Your task to perform on an android device: toggle notifications settings in the gmail app Image 0: 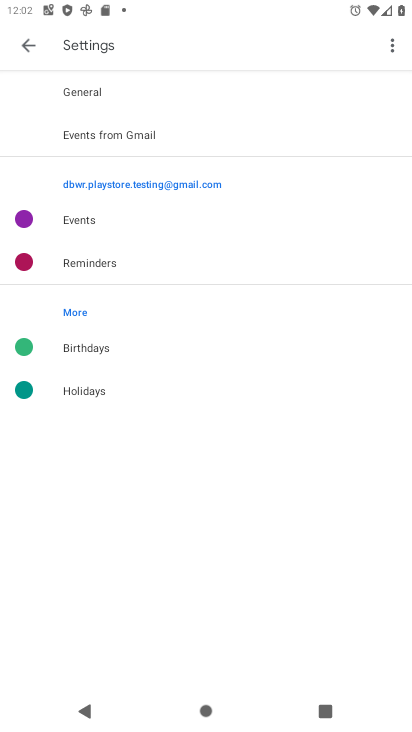
Step 0: press home button
Your task to perform on an android device: toggle notifications settings in the gmail app Image 1: 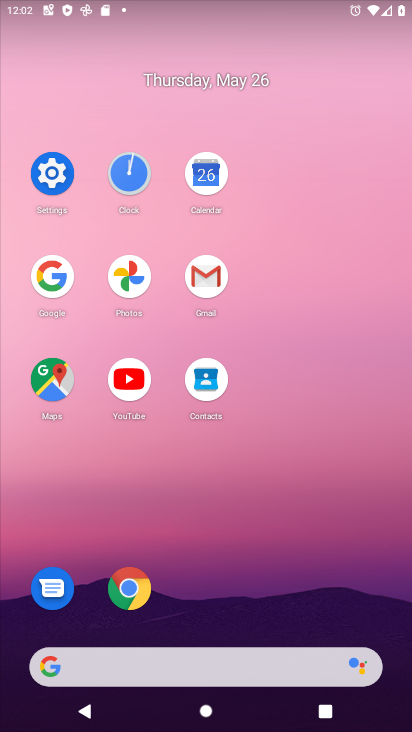
Step 1: click (38, 180)
Your task to perform on an android device: toggle notifications settings in the gmail app Image 2: 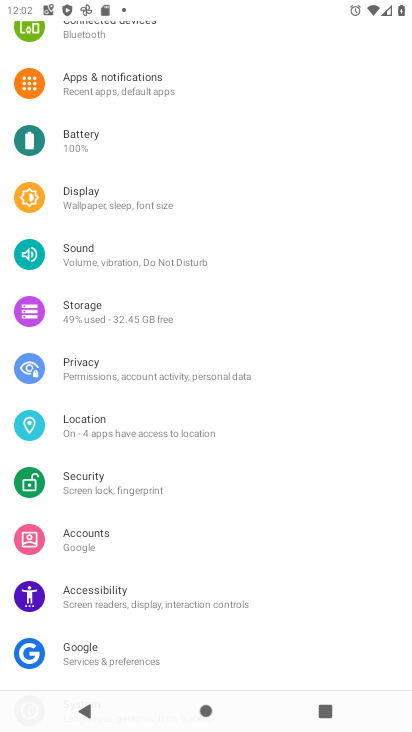
Step 2: click (203, 99)
Your task to perform on an android device: toggle notifications settings in the gmail app Image 3: 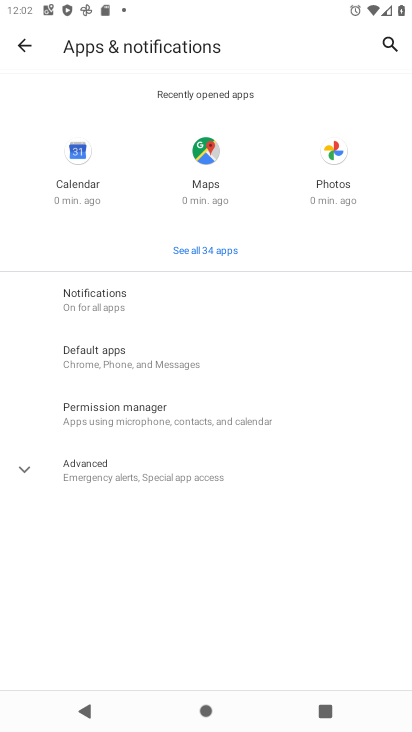
Step 3: click (113, 309)
Your task to perform on an android device: toggle notifications settings in the gmail app Image 4: 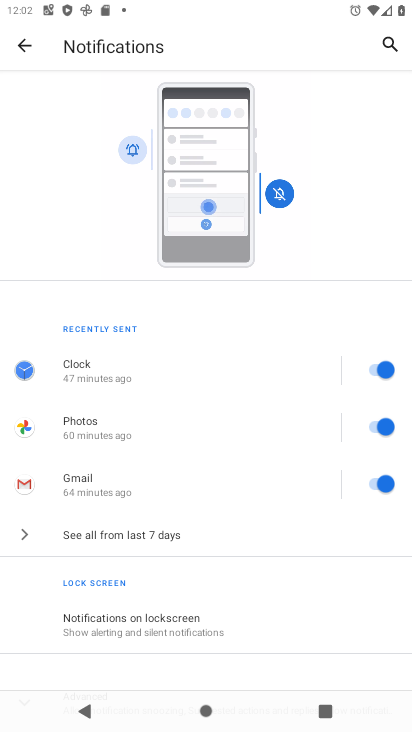
Step 4: drag from (236, 597) to (223, 306)
Your task to perform on an android device: toggle notifications settings in the gmail app Image 5: 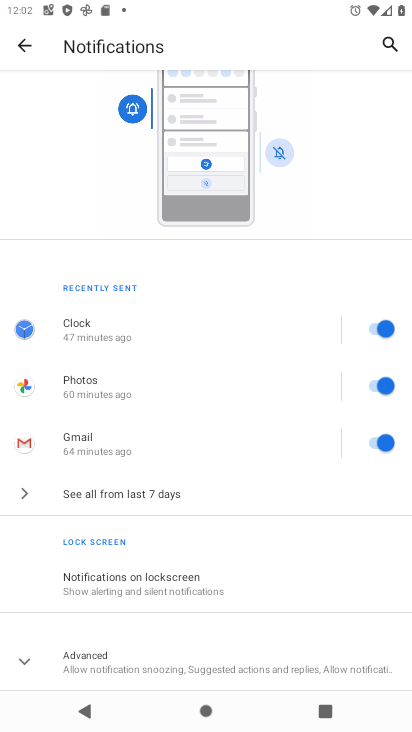
Step 5: click (227, 648)
Your task to perform on an android device: toggle notifications settings in the gmail app Image 6: 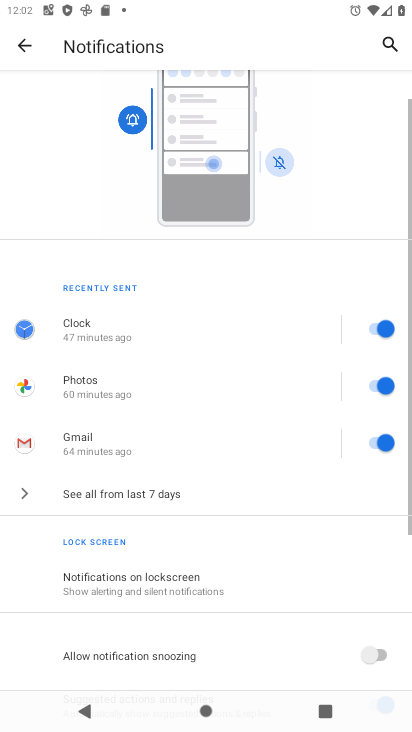
Step 6: drag from (268, 606) to (251, 257)
Your task to perform on an android device: toggle notifications settings in the gmail app Image 7: 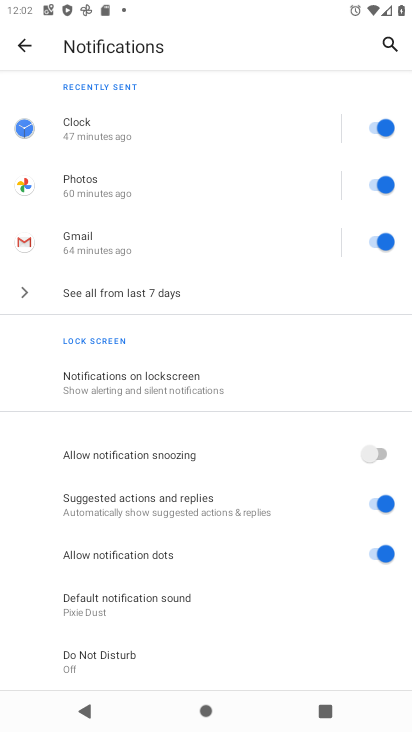
Step 7: click (371, 461)
Your task to perform on an android device: toggle notifications settings in the gmail app Image 8: 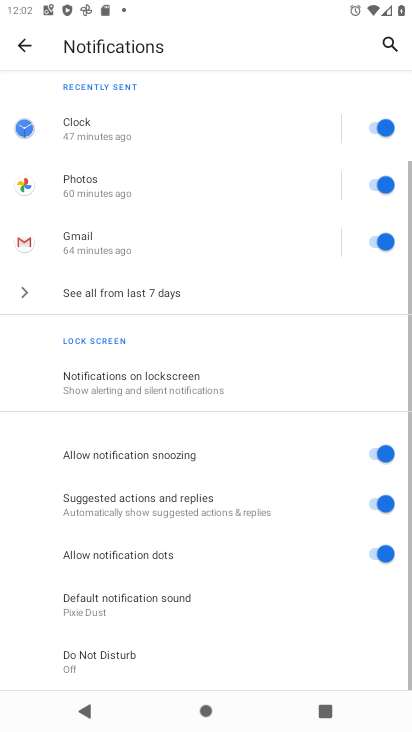
Step 8: click (387, 499)
Your task to perform on an android device: toggle notifications settings in the gmail app Image 9: 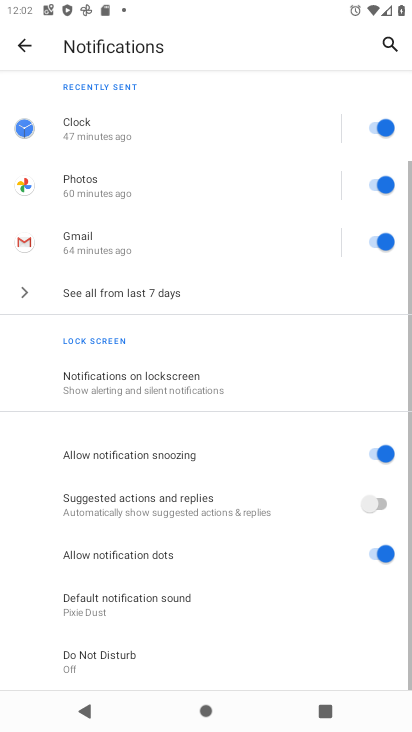
Step 9: click (387, 550)
Your task to perform on an android device: toggle notifications settings in the gmail app Image 10: 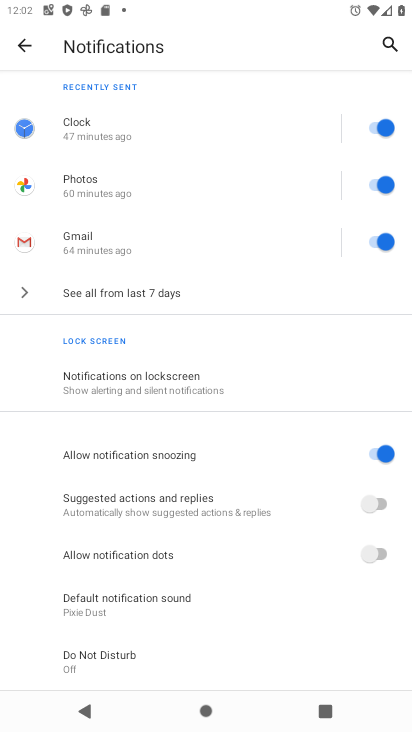
Step 10: task complete